Your task to perform on an android device: change the clock display to analog Image 0: 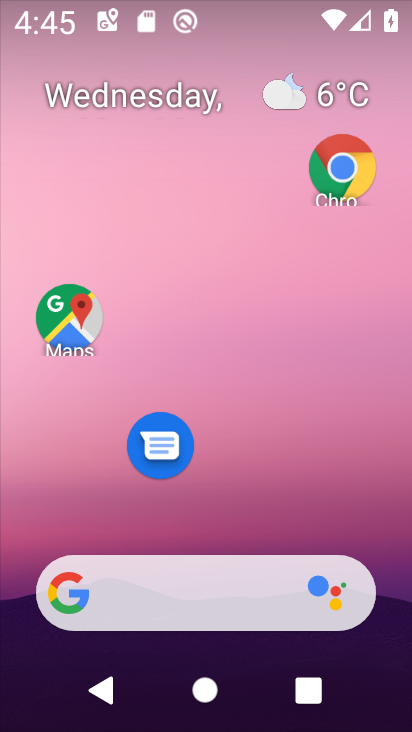
Step 0: drag from (253, 544) to (365, 14)
Your task to perform on an android device: change the clock display to analog Image 1: 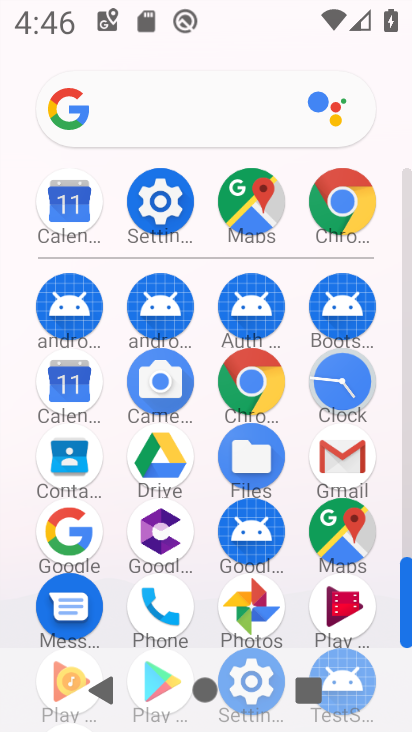
Step 1: click (330, 387)
Your task to perform on an android device: change the clock display to analog Image 2: 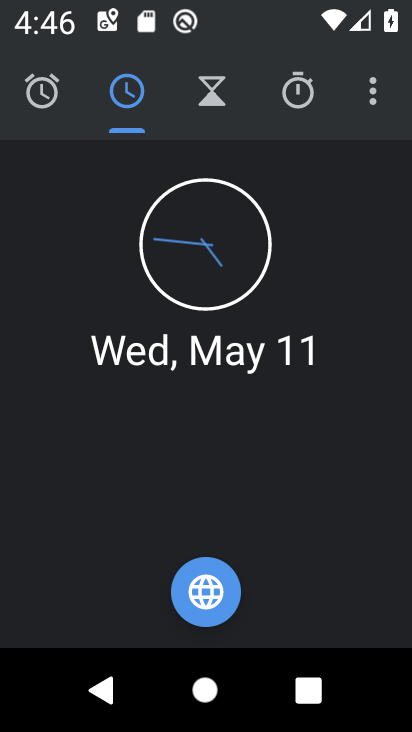
Step 2: click (376, 102)
Your task to perform on an android device: change the clock display to analog Image 3: 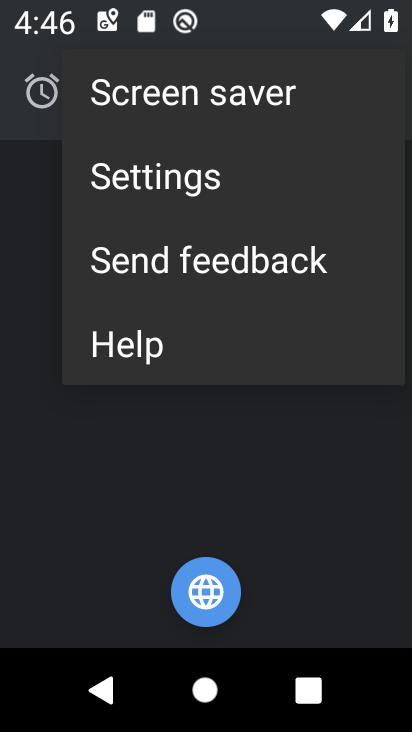
Step 3: click (241, 193)
Your task to perform on an android device: change the clock display to analog Image 4: 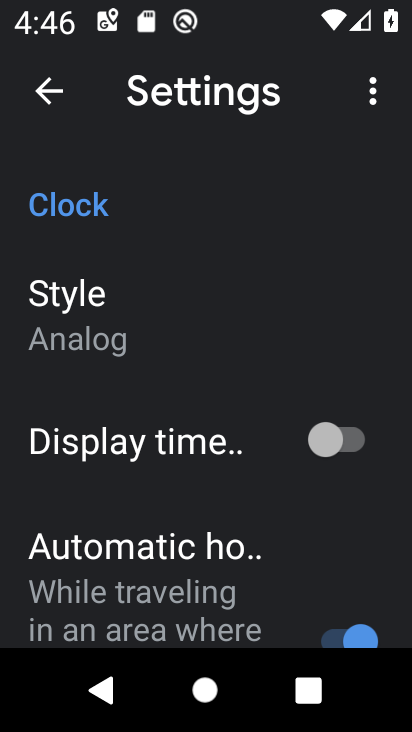
Step 4: task complete